Your task to perform on an android device: change the clock display to show seconds Image 0: 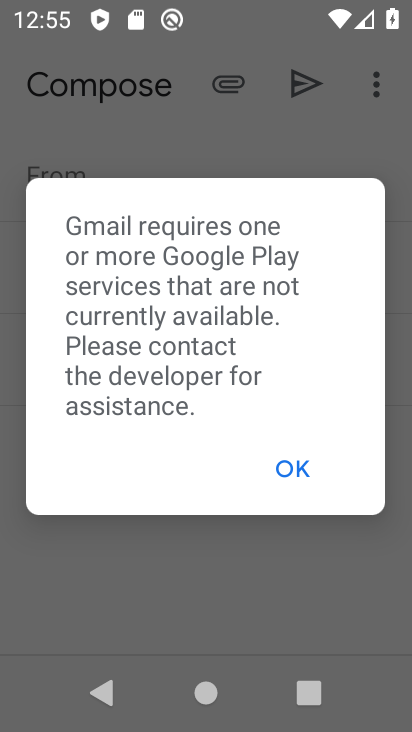
Step 0: press home button
Your task to perform on an android device: change the clock display to show seconds Image 1: 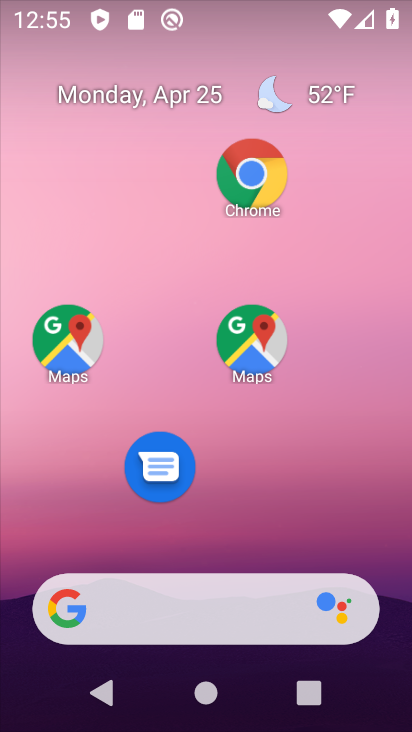
Step 1: drag from (250, 515) to (257, 194)
Your task to perform on an android device: change the clock display to show seconds Image 2: 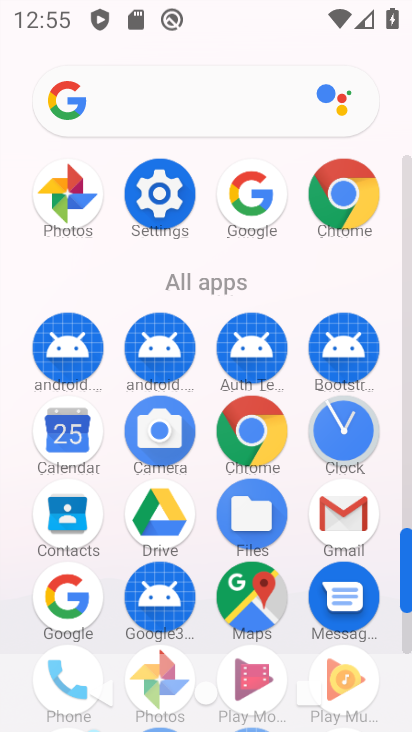
Step 2: click (348, 437)
Your task to perform on an android device: change the clock display to show seconds Image 3: 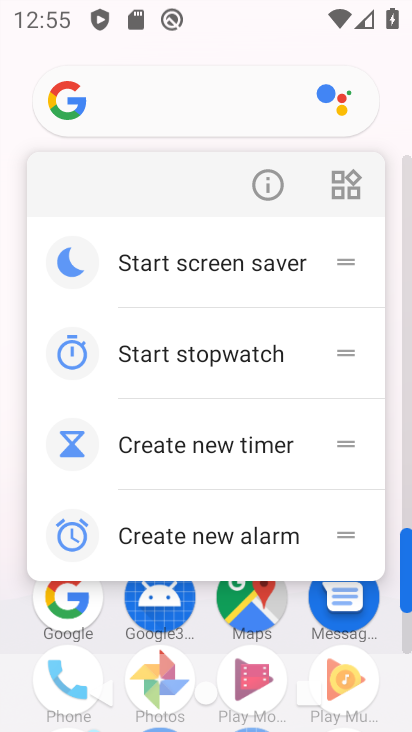
Step 3: click (249, 34)
Your task to perform on an android device: change the clock display to show seconds Image 4: 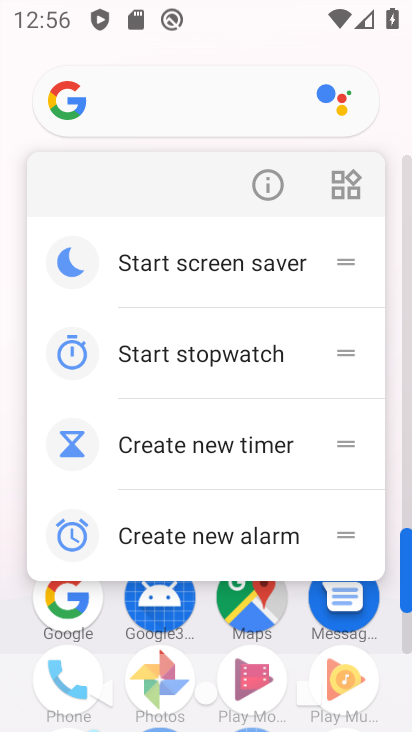
Step 4: click (243, 44)
Your task to perform on an android device: change the clock display to show seconds Image 5: 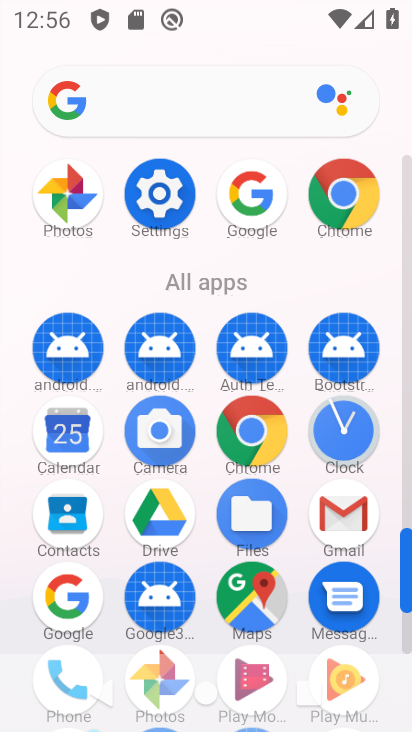
Step 5: click (346, 442)
Your task to perform on an android device: change the clock display to show seconds Image 6: 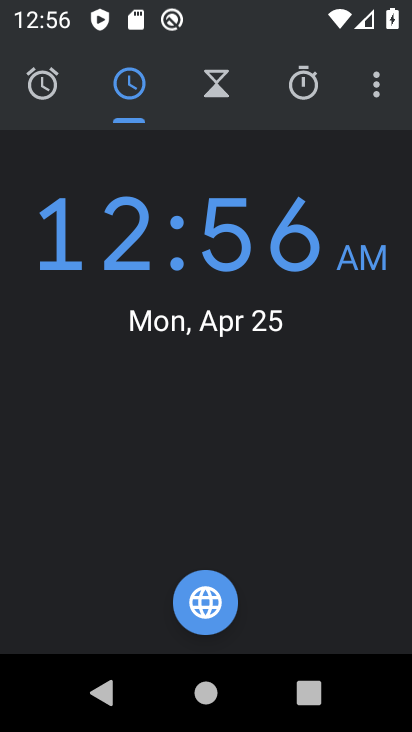
Step 6: click (369, 91)
Your task to perform on an android device: change the clock display to show seconds Image 7: 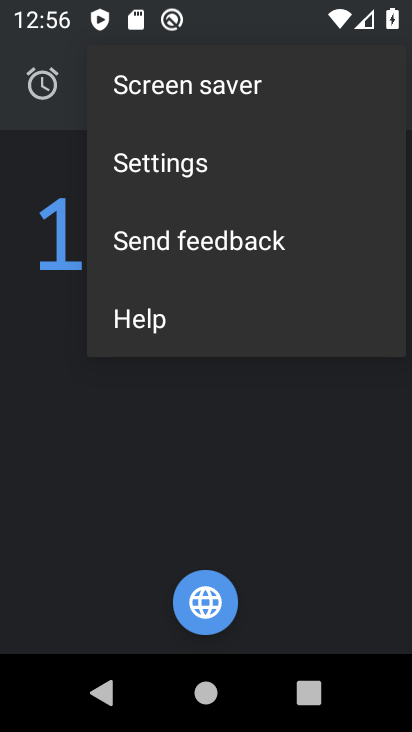
Step 7: click (206, 159)
Your task to perform on an android device: change the clock display to show seconds Image 8: 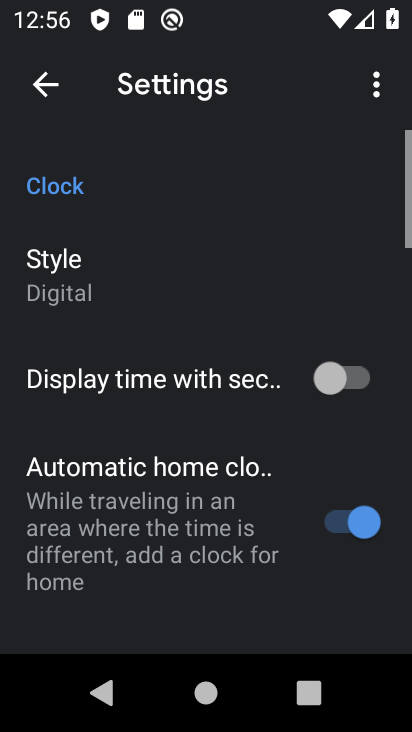
Step 8: click (355, 378)
Your task to perform on an android device: change the clock display to show seconds Image 9: 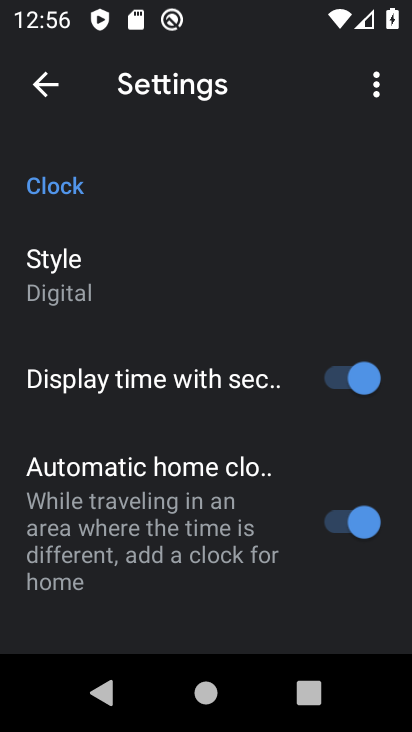
Step 9: task complete